Your task to perform on an android device: turn off improve location accuracy Image 0: 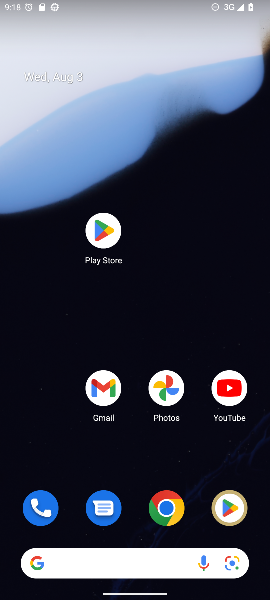
Step 0: click (131, 520)
Your task to perform on an android device: turn off improve location accuracy Image 1: 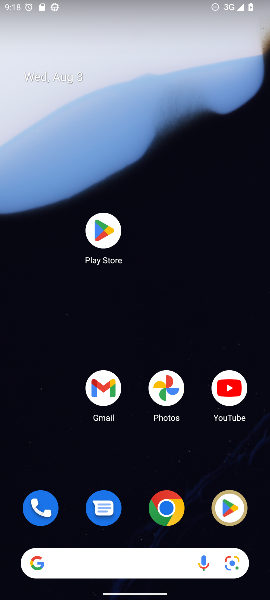
Step 1: drag from (131, 535) to (176, 17)
Your task to perform on an android device: turn off improve location accuracy Image 2: 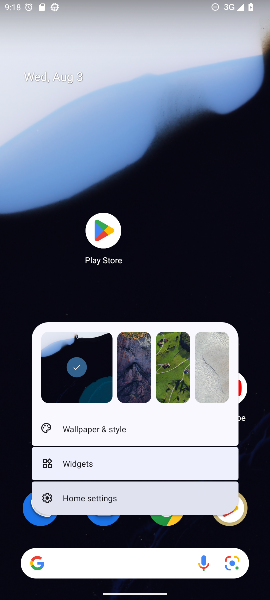
Step 2: click (101, 177)
Your task to perform on an android device: turn off improve location accuracy Image 3: 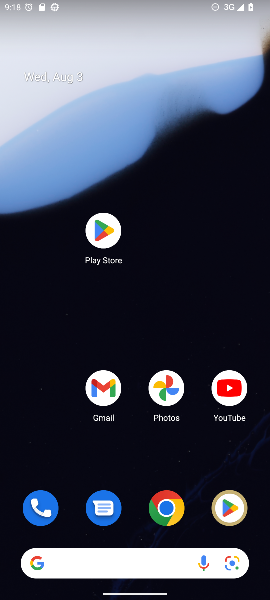
Step 3: drag from (155, 540) to (191, 429)
Your task to perform on an android device: turn off improve location accuracy Image 4: 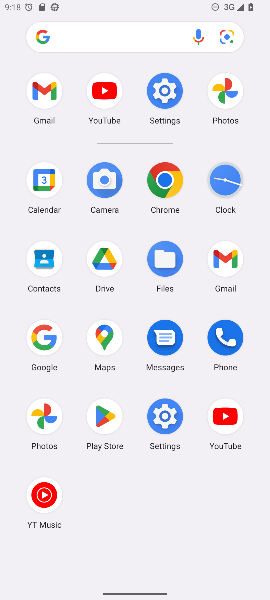
Step 4: click (164, 431)
Your task to perform on an android device: turn off improve location accuracy Image 5: 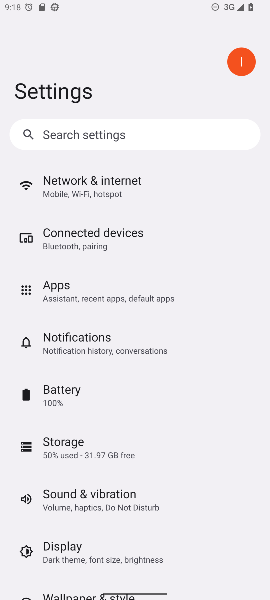
Step 5: drag from (131, 367) to (128, 129)
Your task to perform on an android device: turn off improve location accuracy Image 6: 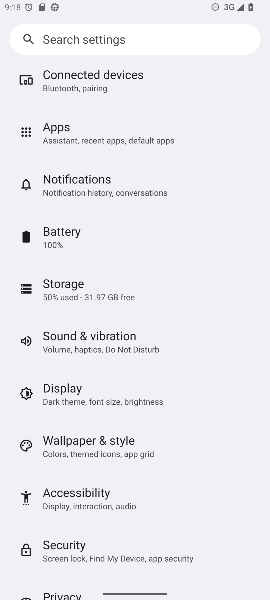
Step 6: drag from (90, 506) to (81, 98)
Your task to perform on an android device: turn off improve location accuracy Image 7: 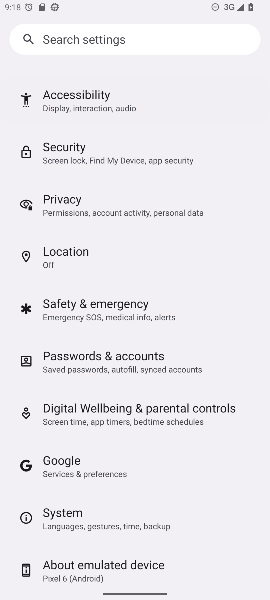
Step 7: click (73, 98)
Your task to perform on an android device: turn off improve location accuracy Image 8: 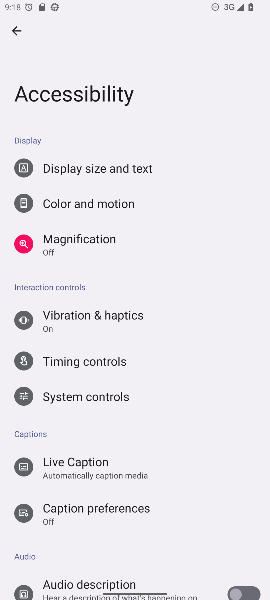
Step 8: click (14, 28)
Your task to perform on an android device: turn off improve location accuracy Image 9: 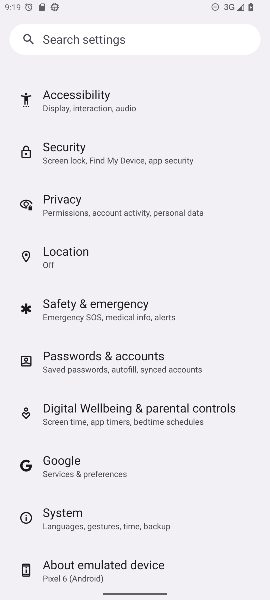
Step 9: click (45, 259)
Your task to perform on an android device: turn off improve location accuracy Image 10: 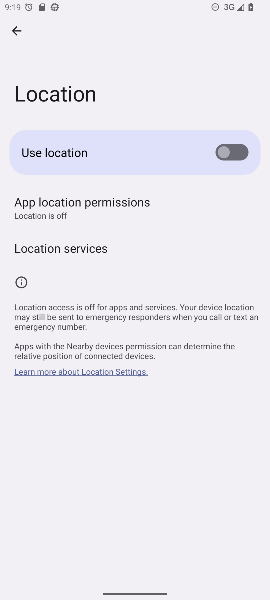
Step 10: click (80, 242)
Your task to perform on an android device: turn off improve location accuracy Image 11: 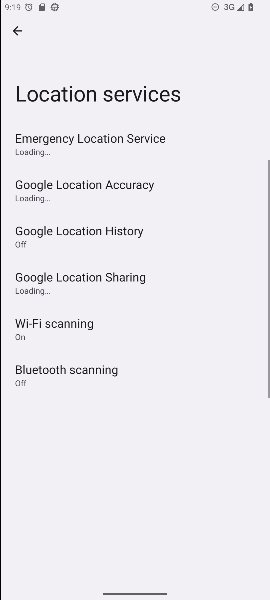
Step 11: click (96, 257)
Your task to perform on an android device: turn off improve location accuracy Image 12: 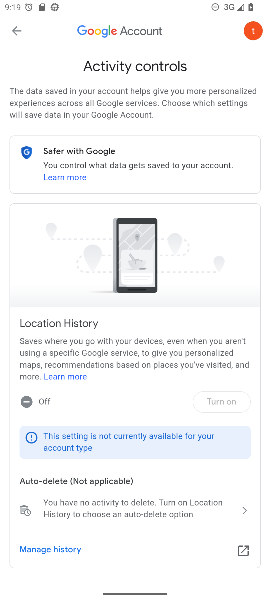
Step 12: task complete